Your task to perform on an android device: Open Yahoo.com Image 0: 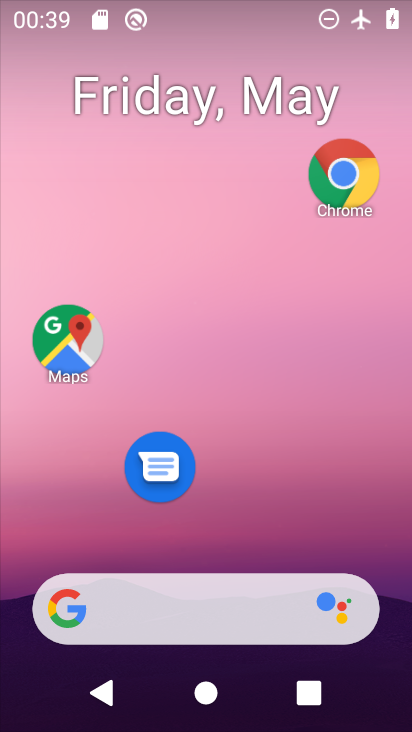
Step 0: click (340, 152)
Your task to perform on an android device: Open Yahoo.com Image 1: 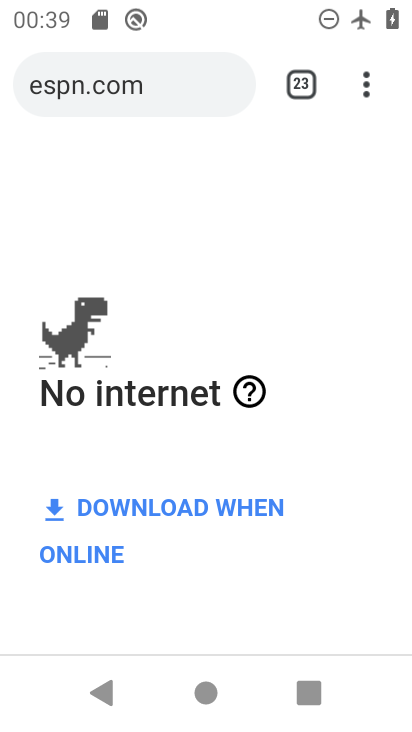
Step 1: click (353, 88)
Your task to perform on an android device: Open Yahoo.com Image 2: 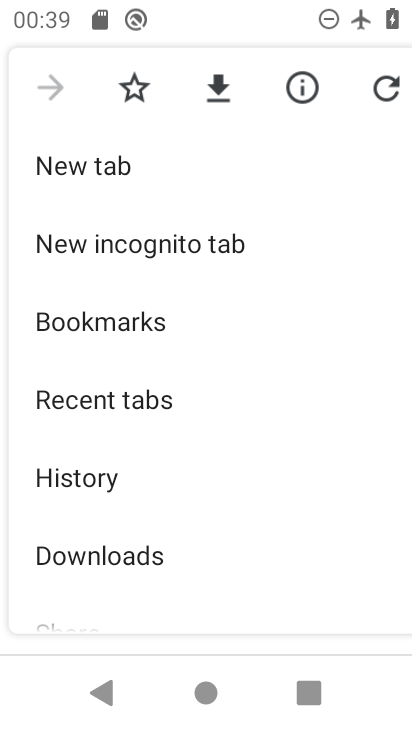
Step 2: click (102, 153)
Your task to perform on an android device: Open Yahoo.com Image 3: 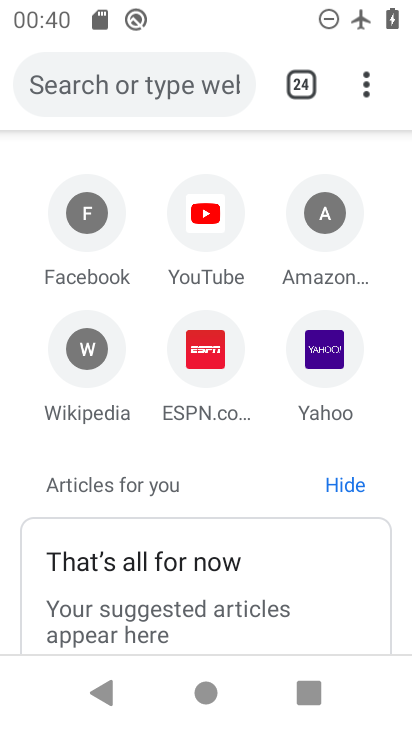
Step 3: click (306, 343)
Your task to perform on an android device: Open Yahoo.com Image 4: 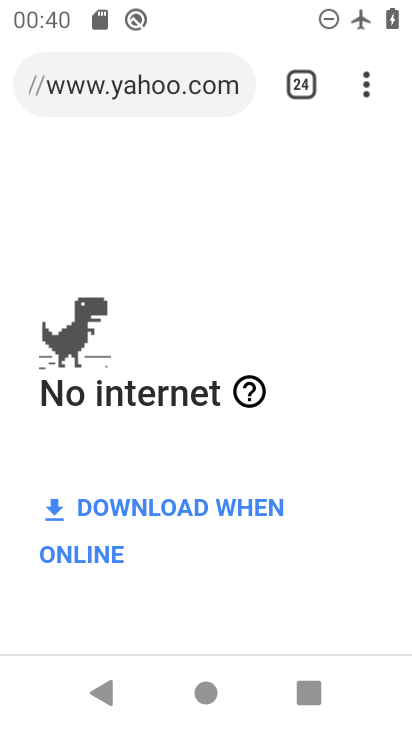
Step 4: task complete